Your task to perform on an android device: Open the calendar app, open the side menu, and click the "Day" option Image 0: 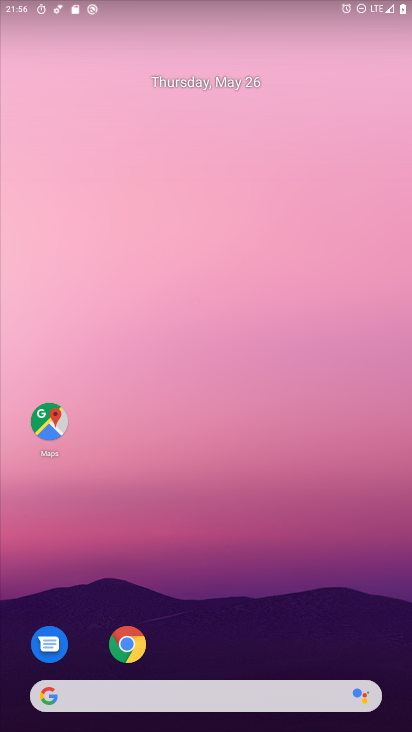
Step 0: drag from (188, 672) to (260, 174)
Your task to perform on an android device: Open the calendar app, open the side menu, and click the "Day" option Image 1: 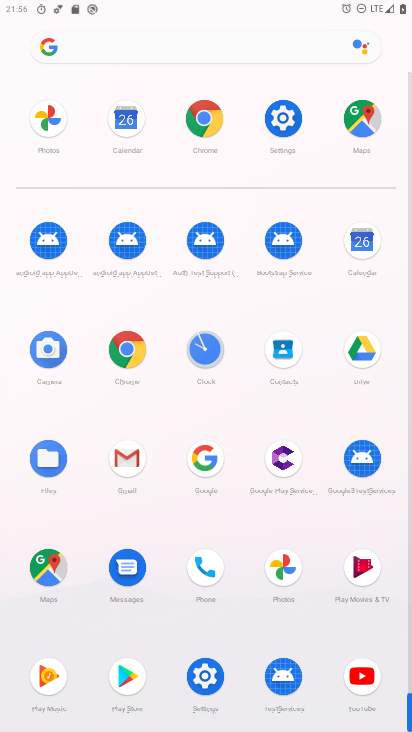
Step 1: click (364, 243)
Your task to perform on an android device: Open the calendar app, open the side menu, and click the "Day" option Image 2: 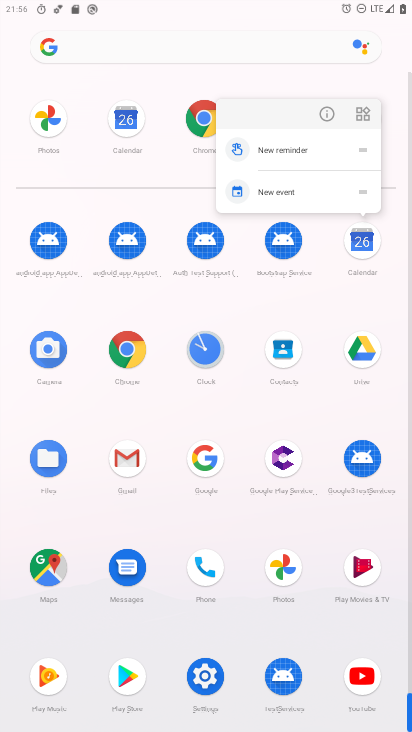
Step 2: click (330, 112)
Your task to perform on an android device: Open the calendar app, open the side menu, and click the "Day" option Image 3: 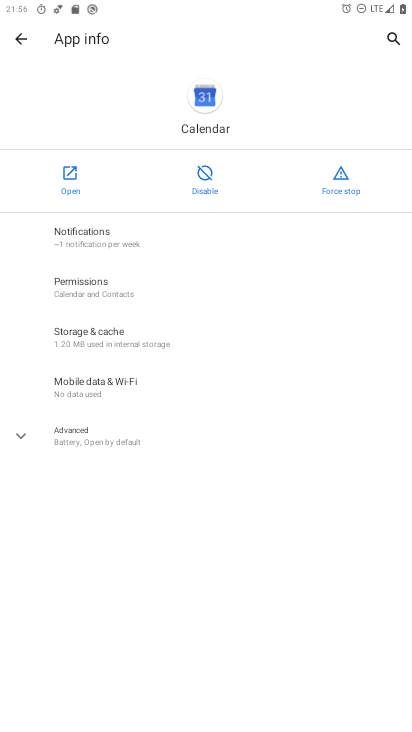
Step 3: click (71, 178)
Your task to perform on an android device: Open the calendar app, open the side menu, and click the "Day" option Image 4: 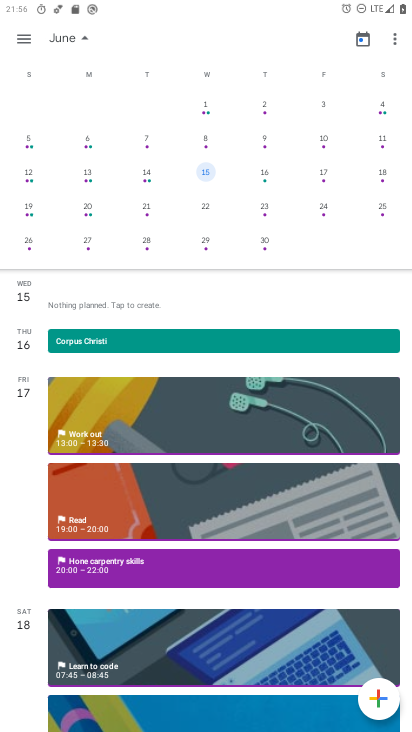
Step 4: click (15, 35)
Your task to perform on an android device: Open the calendar app, open the side menu, and click the "Day" option Image 5: 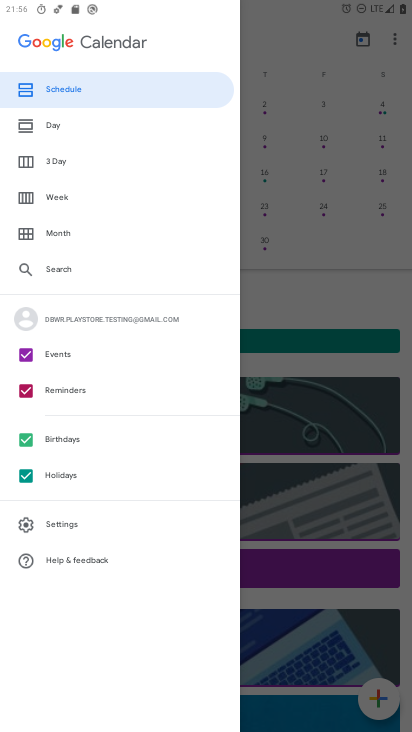
Step 5: click (69, 126)
Your task to perform on an android device: Open the calendar app, open the side menu, and click the "Day" option Image 6: 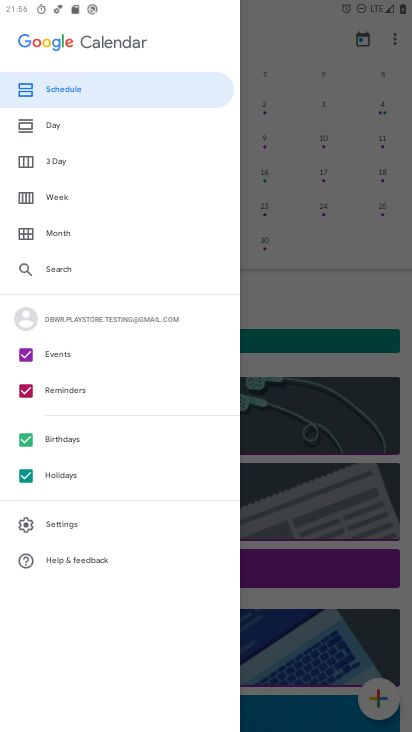
Step 6: click (63, 132)
Your task to perform on an android device: Open the calendar app, open the side menu, and click the "Day" option Image 7: 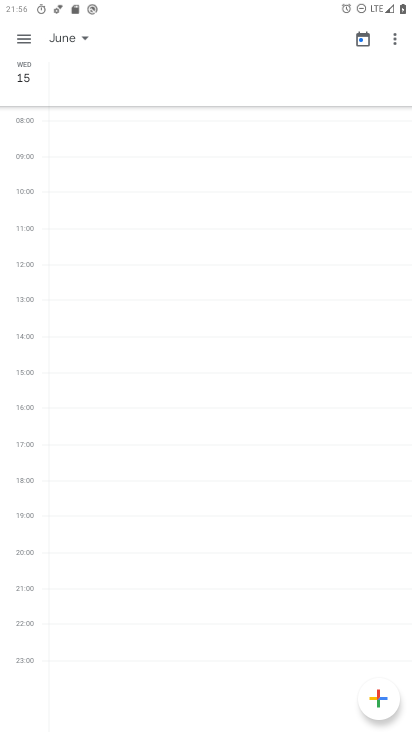
Step 7: task complete